Your task to perform on an android device: Go to display settings Image 0: 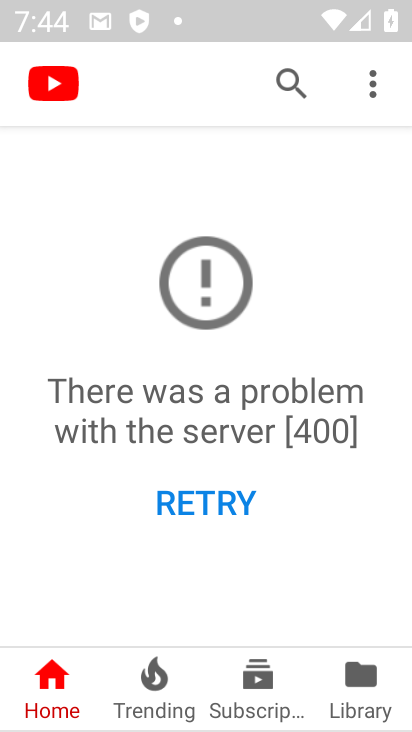
Step 0: press back button
Your task to perform on an android device: Go to display settings Image 1: 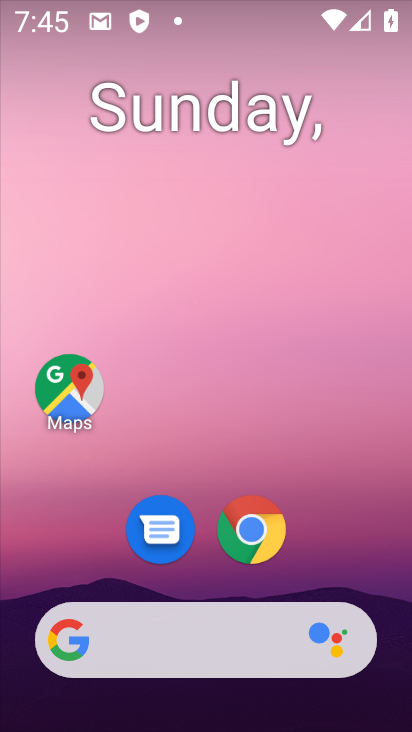
Step 1: drag from (216, 588) to (230, 49)
Your task to perform on an android device: Go to display settings Image 2: 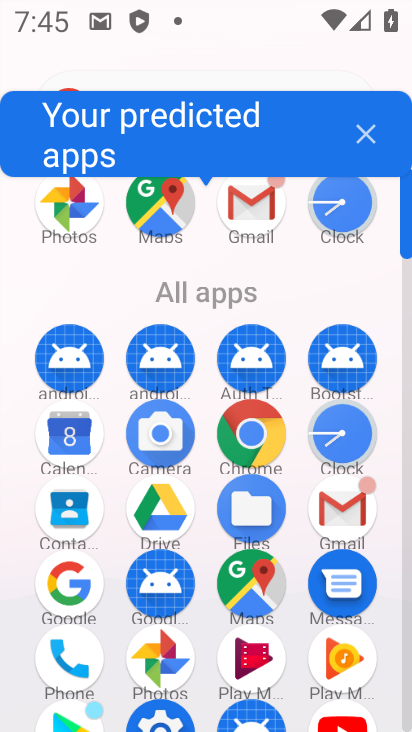
Step 2: drag from (212, 571) to (227, 175)
Your task to perform on an android device: Go to display settings Image 3: 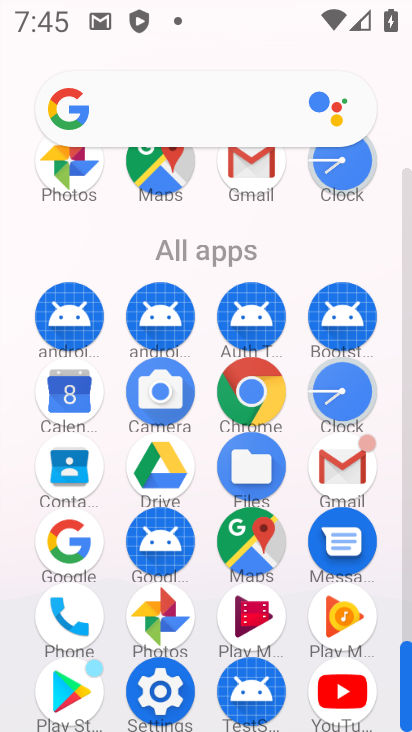
Step 3: click (170, 683)
Your task to perform on an android device: Go to display settings Image 4: 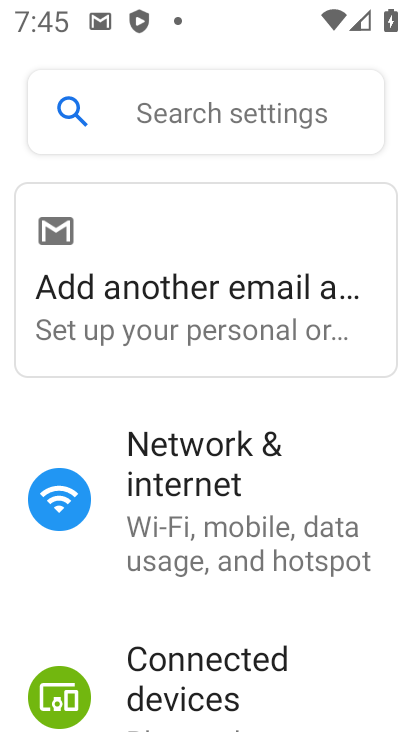
Step 4: drag from (186, 636) to (233, 299)
Your task to perform on an android device: Go to display settings Image 5: 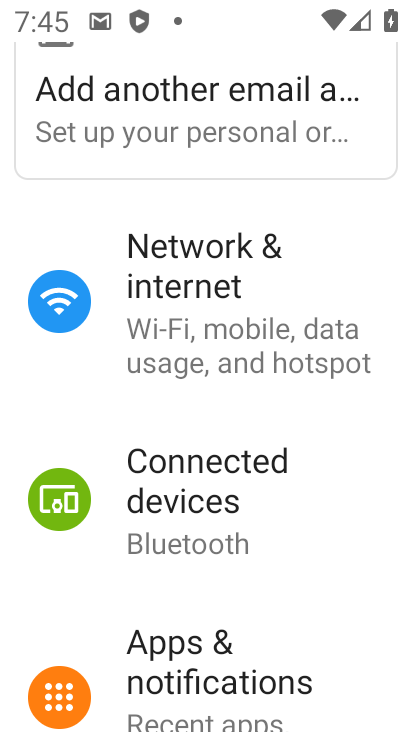
Step 5: drag from (191, 654) to (216, 224)
Your task to perform on an android device: Go to display settings Image 6: 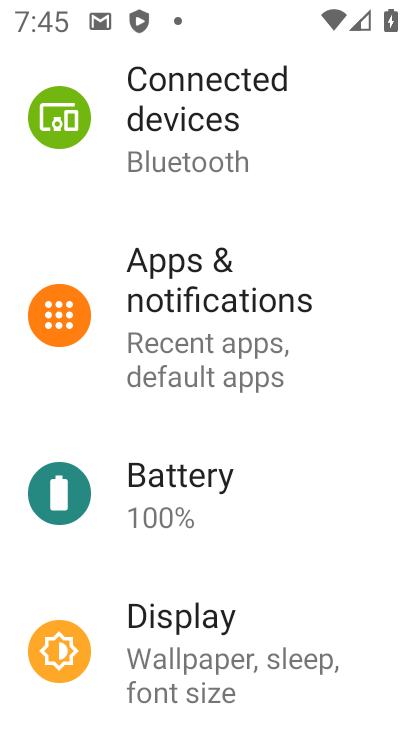
Step 6: click (182, 630)
Your task to perform on an android device: Go to display settings Image 7: 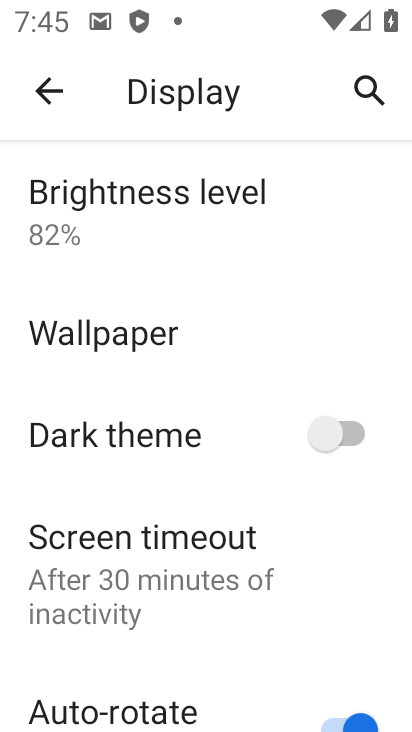
Step 7: task complete